Your task to perform on an android device: turn notification dots on Image 0: 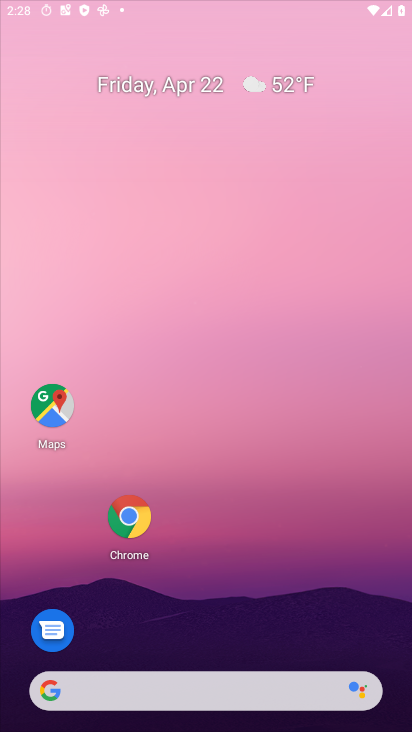
Step 0: drag from (376, 645) to (383, 147)
Your task to perform on an android device: turn notification dots on Image 1: 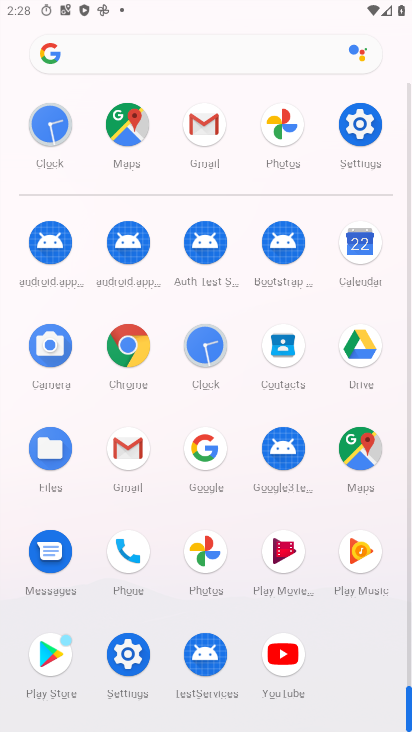
Step 1: click (123, 648)
Your task to perform on an android device: turn notification dots on Image 2: 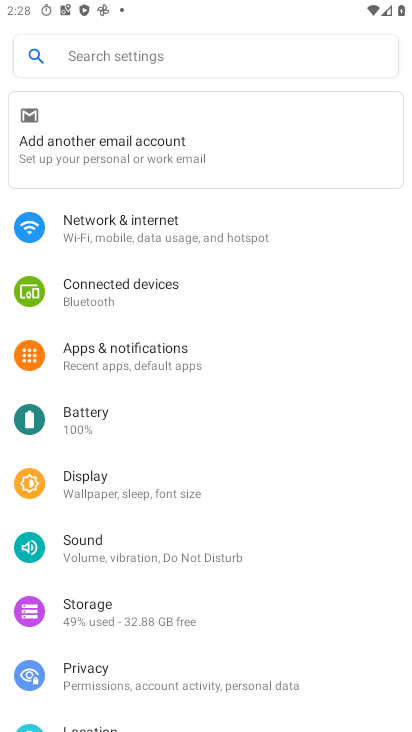
Step 2: drag from (363, 505) to (378, 340)
Your task to perform on an android device: turn notification dots on Image 3: 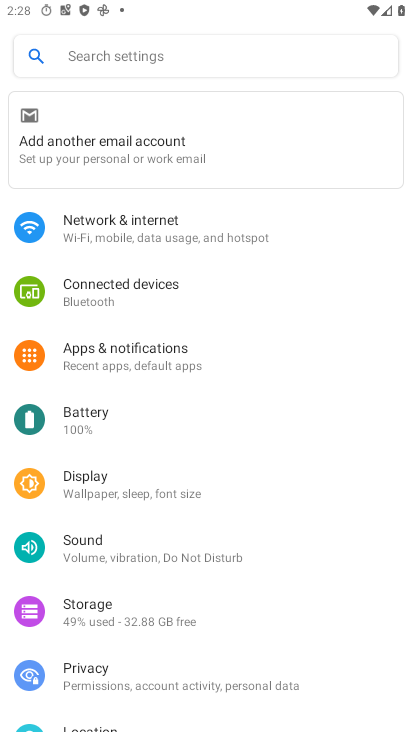
Step 3: drag from (322, 678) to (327, 354)
Your task to perform on an android device: turn notification dots on Image 4: 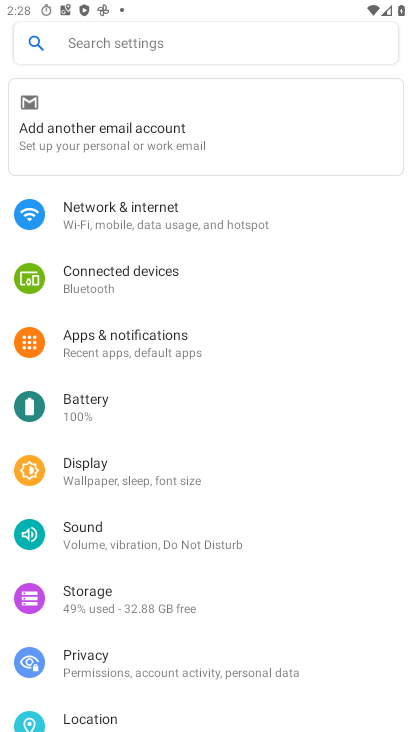
Step 4: click (95, 339)
Your task to perform on an android device: turn notification dots on Image 5: 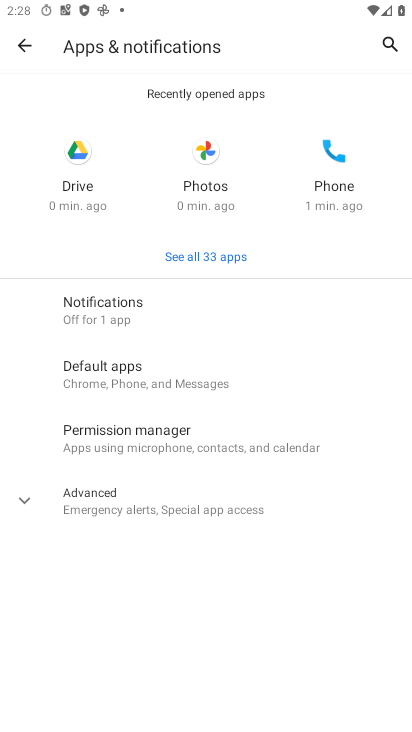
Step 5: click (74, 306)
Your task to perform on an android device: turn notification dots on Image 6: 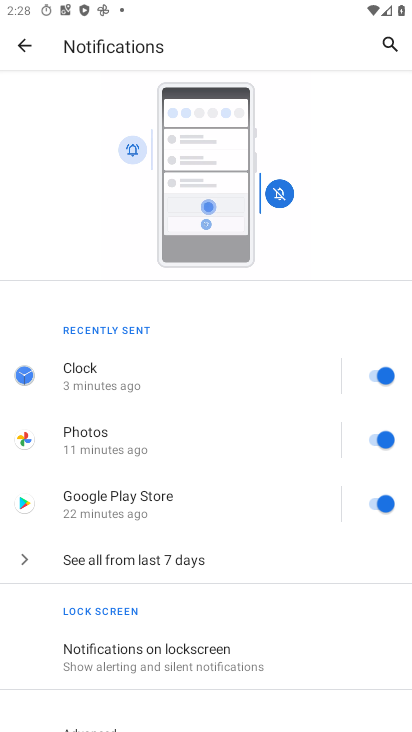
Step 6: drag from (287, 686) to (286, 352)
Your task to perform on an android device: turn notification dots on Image 7: 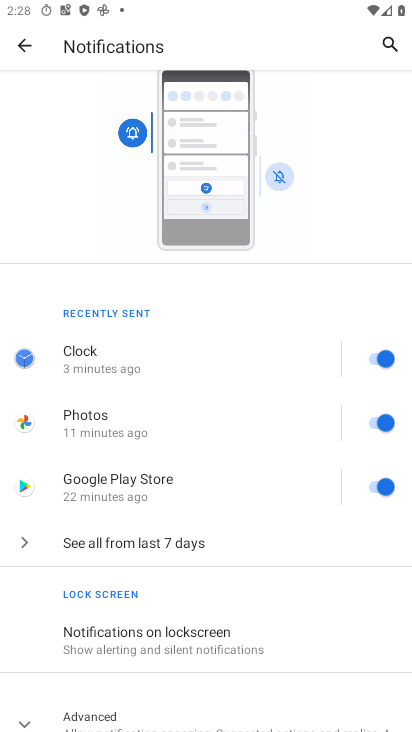
Step 7: drag from (322, 678) to (331, 287)
Your task to perform on an android device: turn notification dots on Image 8: 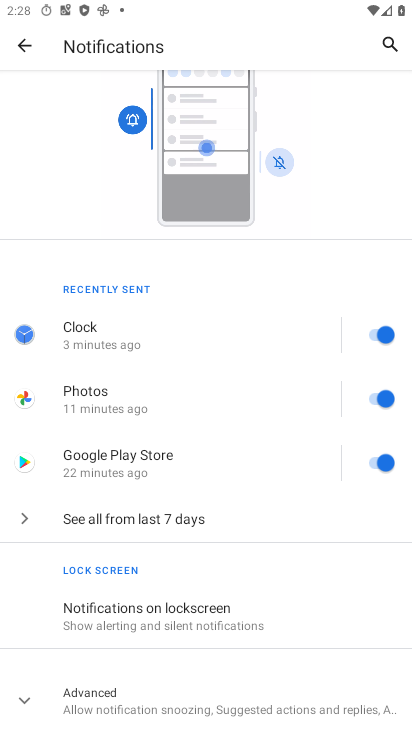
Step 8: click (326, 306)
Your task to perform on an android device: turn notification dots on Image 9: 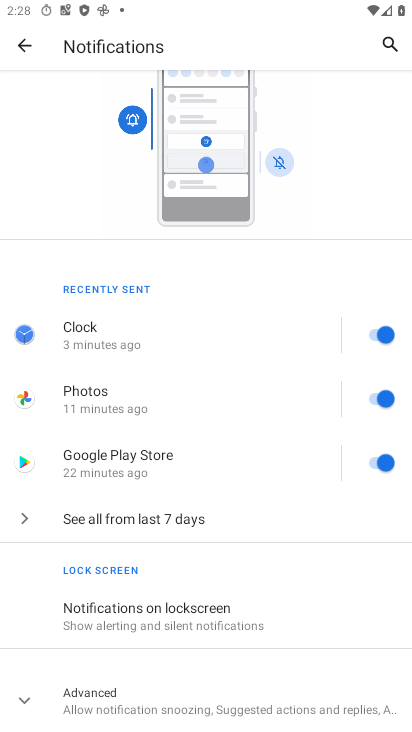
Step 9: click (19, 695)
Your task to perform on an android device: turn notification dots on Image 10: 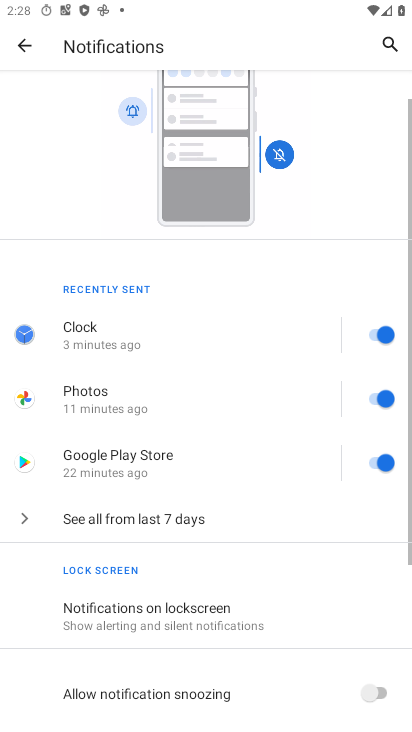
Step 10: click (332, 249)
Your task to perform on an android device: turn notification dots on Image 11: 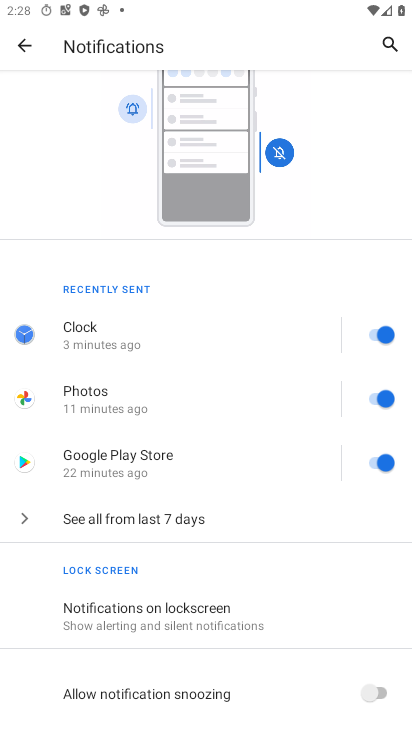
Step 11: task complete